Your task to perform on an android device: turn notification dots on Image 0: 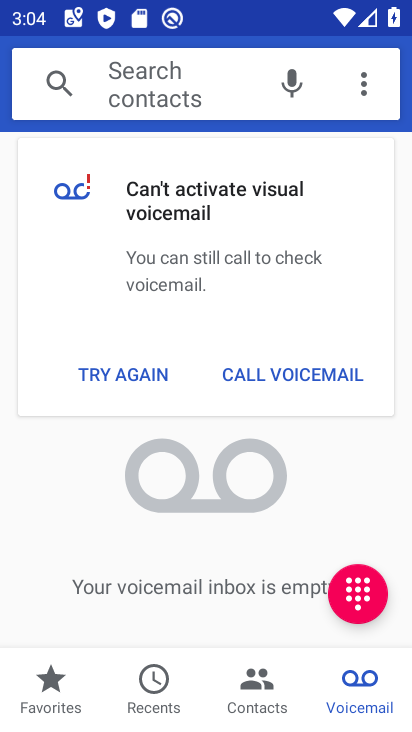
Step 0: press home button
Your task to perform on an android device: turn notification dots on Image 1: 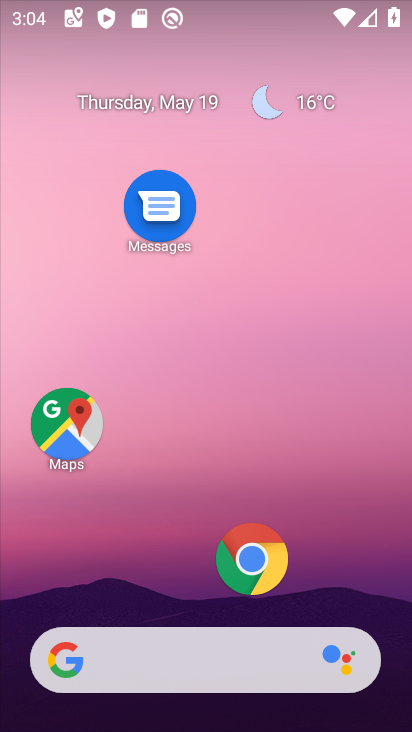
Step 1: drag from (190, 587) to (226, 266)
Your task to perform on an android device: turn notification dots on Image 2: 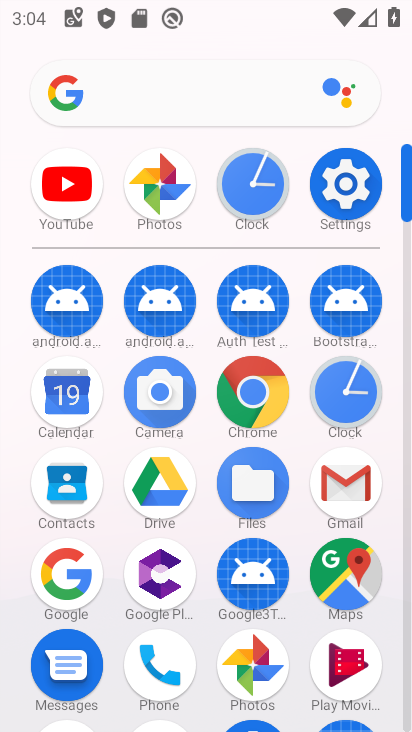
Step 2: click (341, 193)
Your task to perform on an android device: turn notification dots on Image 3: 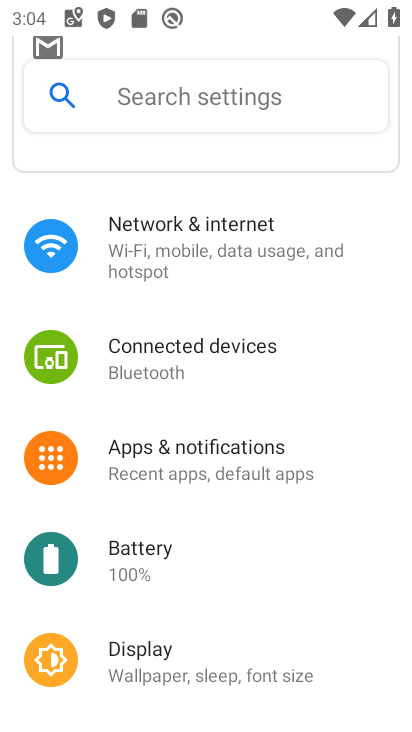
Step 3: click (239, 237)
Your task to perform on an android device: turn notification dots on Image 4: 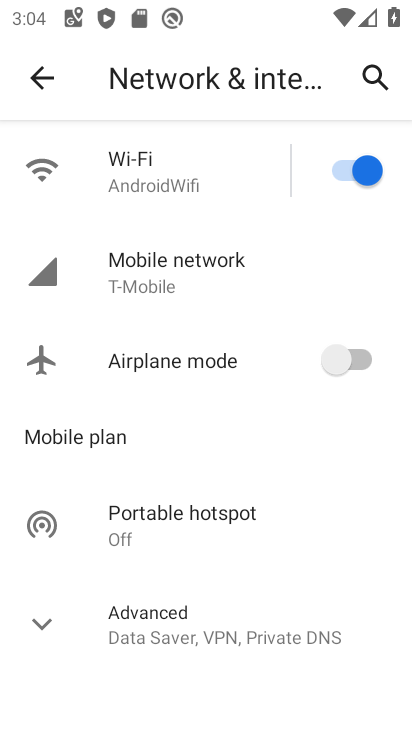
Step 4: drag from (165, 583) to (182, 263)
Your task to perform on an android device: turn notification dots on Image 5: 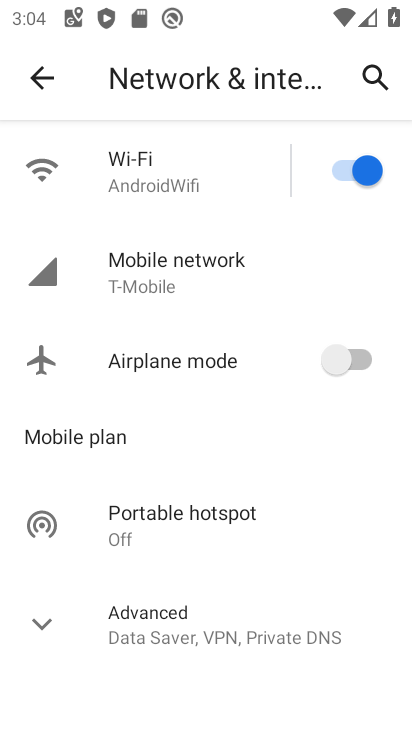
Step 5: click (31, 79)
Your task to perform on an android device: turn notification dots on Image 6: 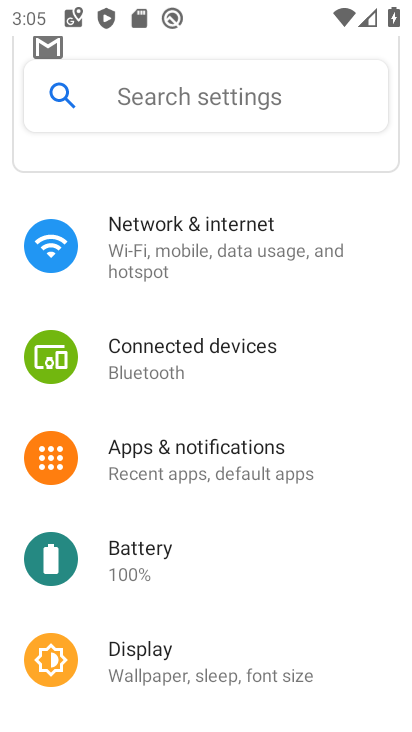
Step 6: click (209, 461)
Your task to perform on an android device: turn notification dots on Image 7: 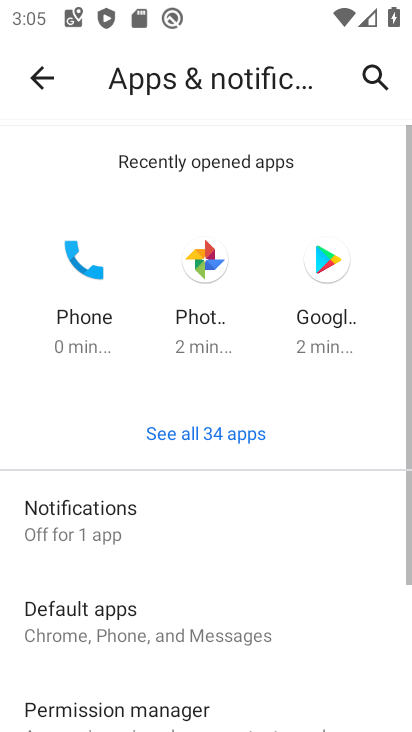
Step 7: click (156, 542)
Your task to perform on an android device: turn notification dots on Image 8: 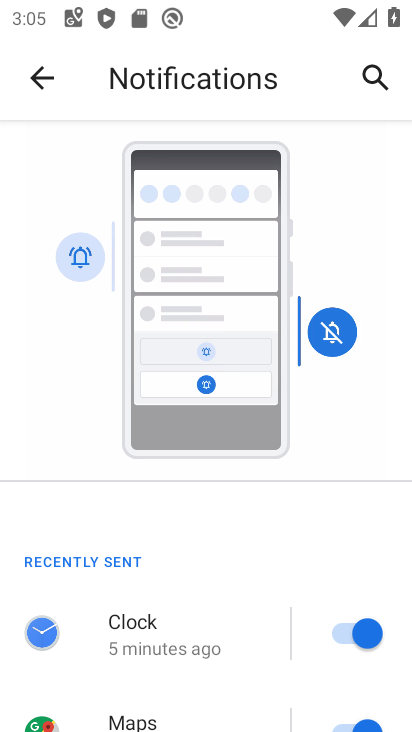
Step 8: drag from (187, 633) to (215, 339)
Your task to perform on an android device: turn notification dots on Image 9: 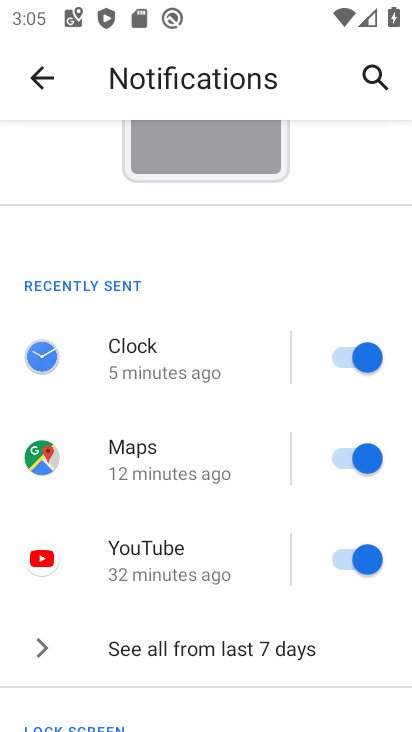
Step 9: drag from (219, 598) to (254, 380)
Your task to perform on an android device: turn notification dots on Image 10: 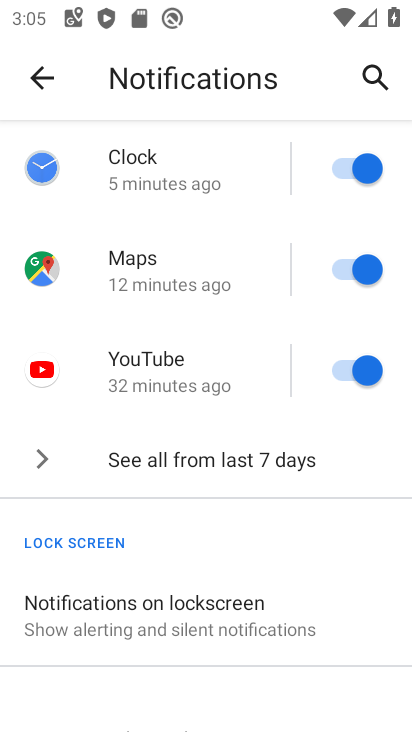
Step 10: drag from (252, 654) to (265, 415)
Your task to perform on an android device: turn notification dots on Image 11: 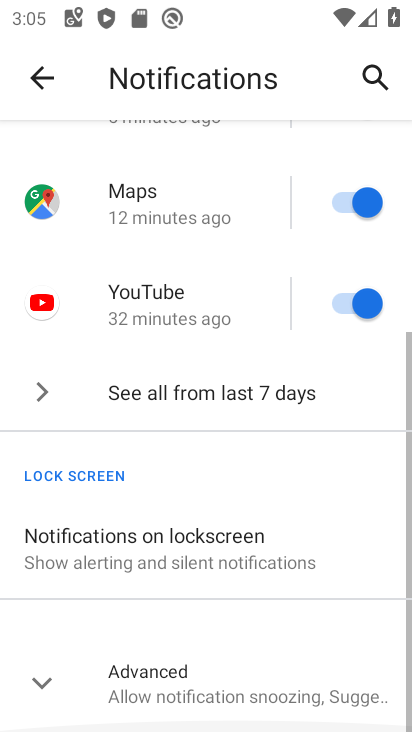
Step 11: click (248, 680)
Your task to perform on an android device: turn notification dots on Image 12: 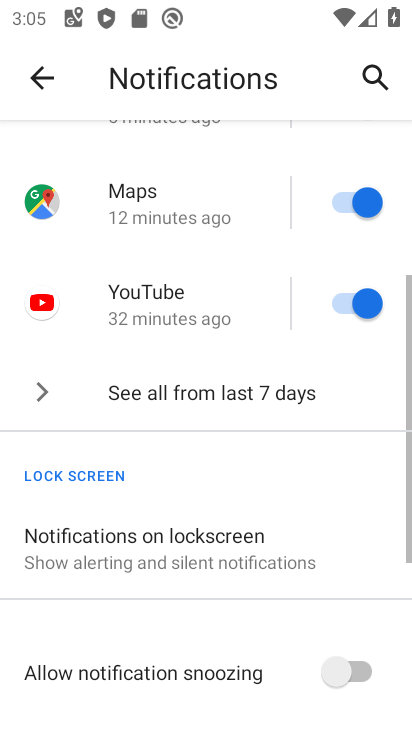
Step 12: drag from (248, 680) to (281, 422)
Your task to perform on an android device: turn notification dots on Image 13: 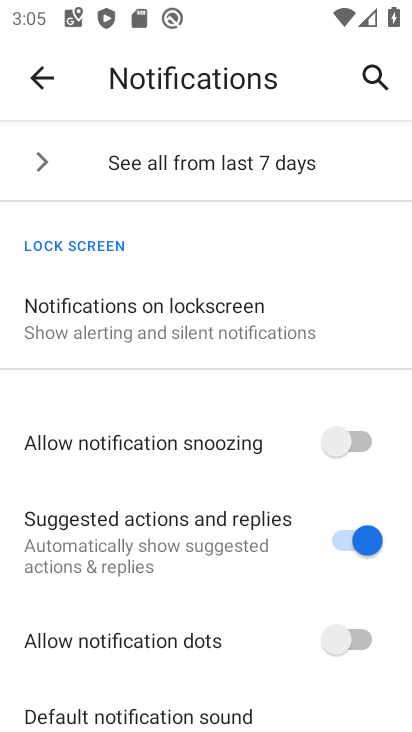
Step 13: click (350, 645)
Your task to perform on an android device: turn notification dots on Image 14: 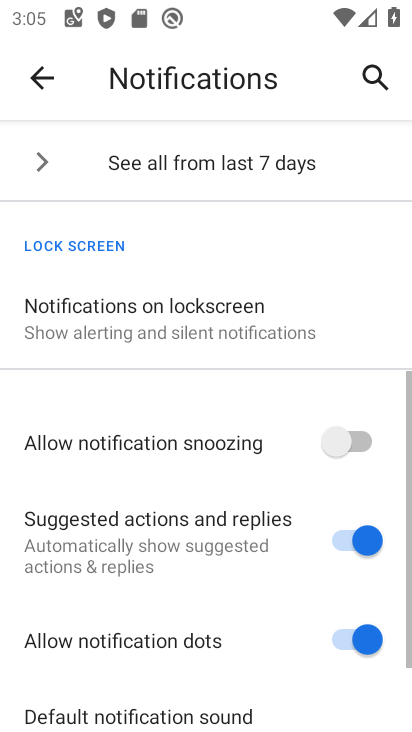
Step 14: task complete